Your task to perform on an android device: open wifi settings Image 0: 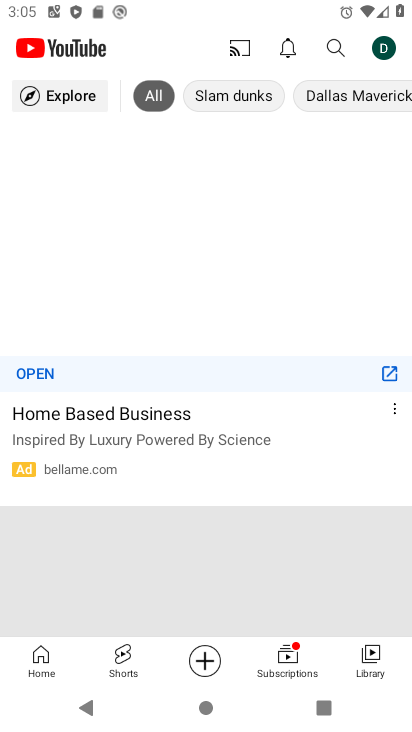
Step 0: drag from (235, 598) to (224, 119)
Your task to perform on an android device: open wifi settings Image 1: 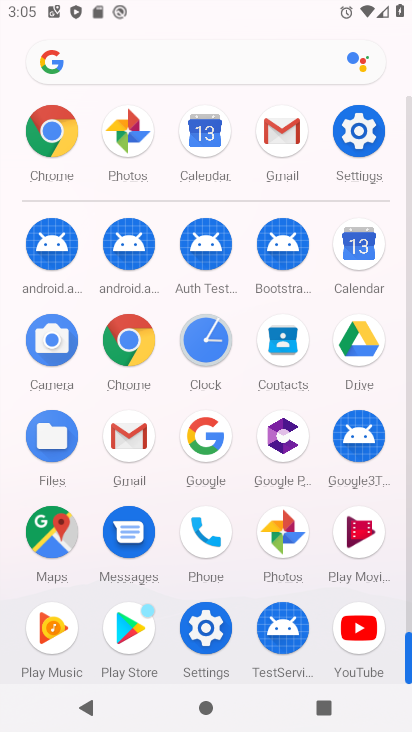
Step 1: click (348, 176)
Your task to perform on an android device: open wifi settings Image 2: 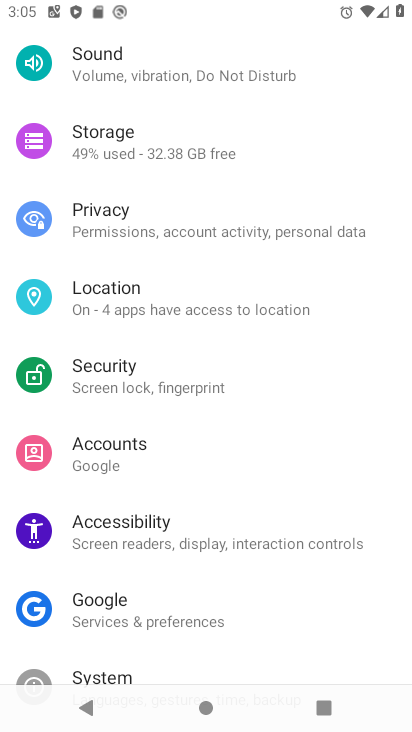
Step 2: drag from (152, 103) to (167, 484)
Your task to perform on an android device: open wifi settings Image 3: 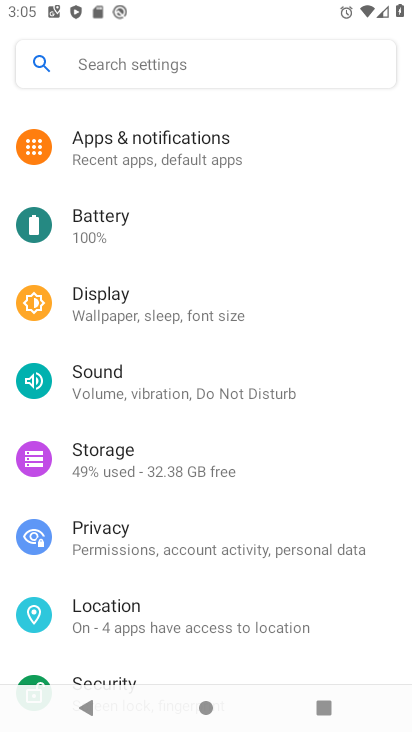
Step 3: drag from (279, 175) to (228, 598)
Your task to perform on an android device: open wifi settings Image 4: 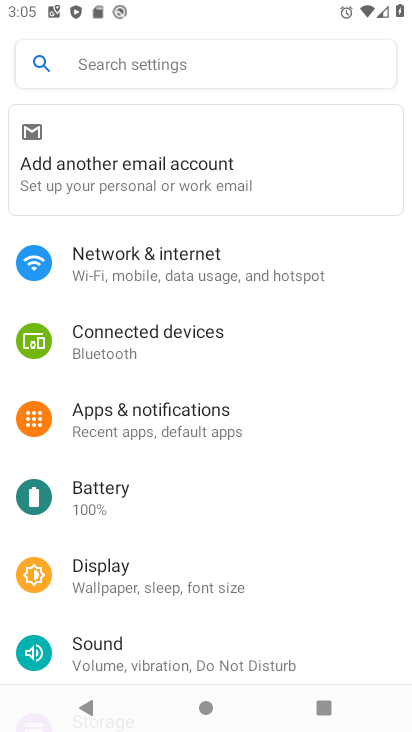
Step 4: click (187, 293)
Your task to perform on an android device: open wifi settings Image 5: 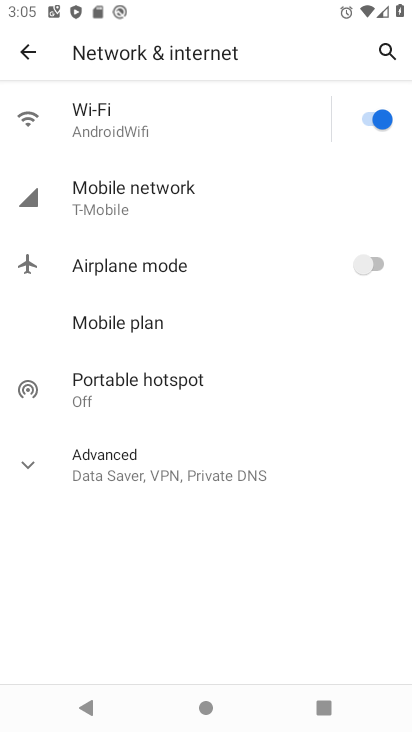
Step 5: click (245, 125)
Your task to perform on an android device: open wifi settings Image 6: 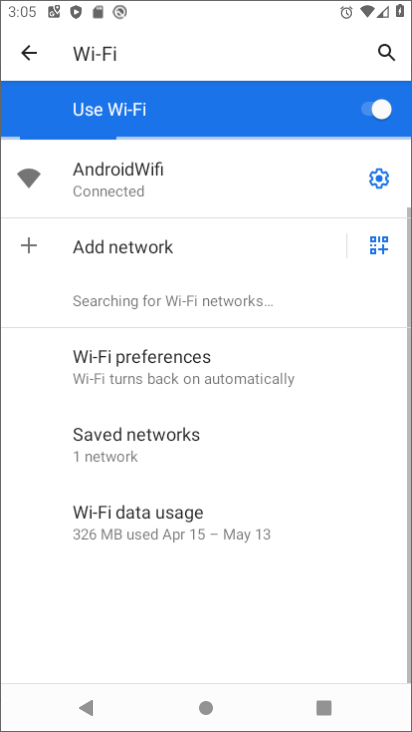
Step 6: task complete